Your task to perform on an android device: Go to Wikipedia Image 0: 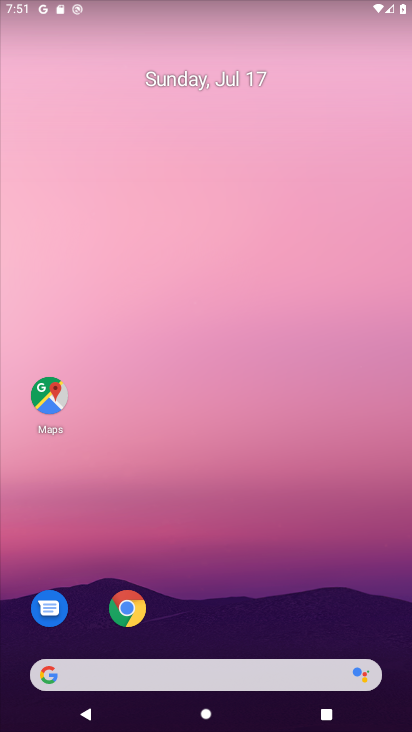
Step 0: click (138, 592)
Your task to perform on an android device: Go to Wikipedia Image 1: 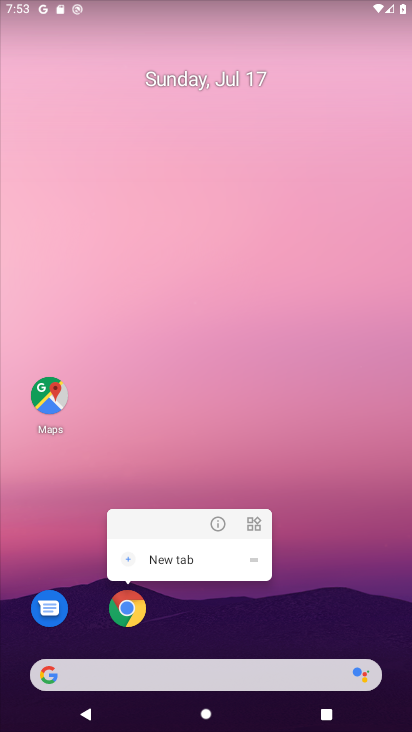
Step 1: drag from (171, 669) to (192, 525)
Your task to perform on an android device: Go to Wikipedia Image 2: 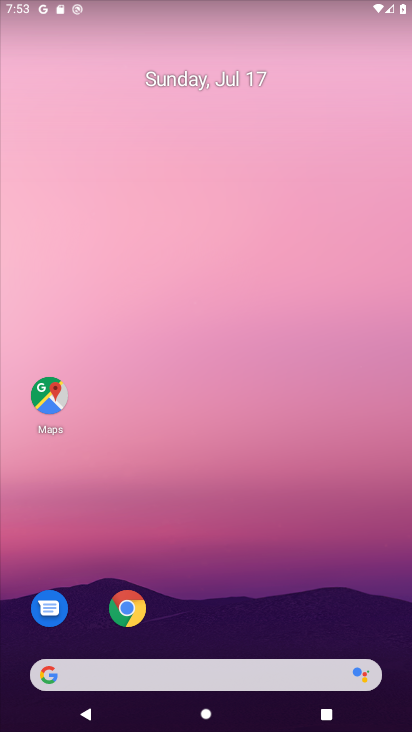
Step 2: click (125, 605)
Your task to perform on an android device: Go to Wikipedia Image 3: 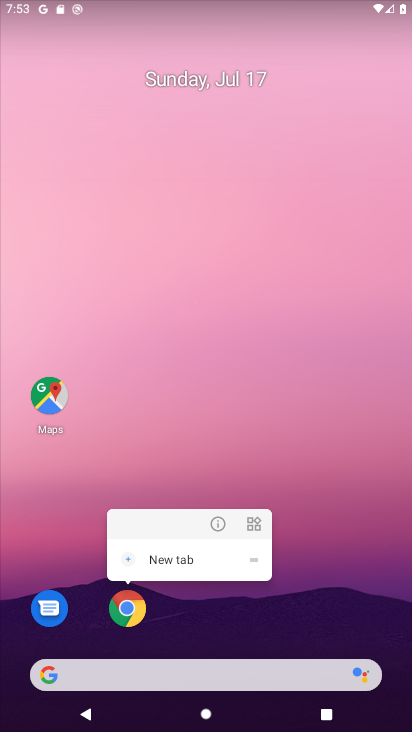
Step 3: click (126, 605)
Your task to perform on an android device: Go to Wikipedia Image 4: 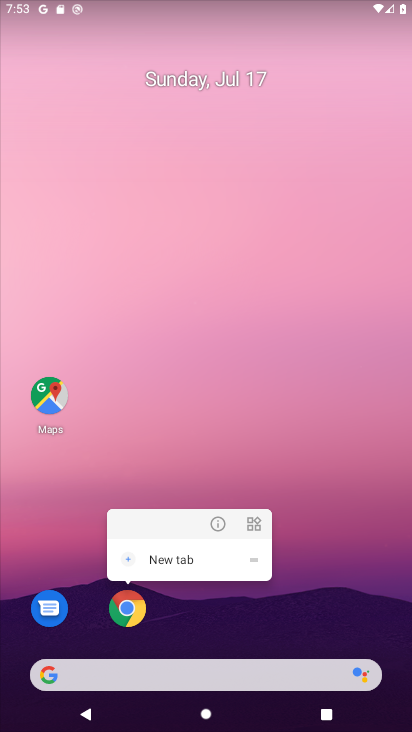
Step 4: click (134, 610)
Your task to perform on an android device: Go to Wikipedia Image 5: 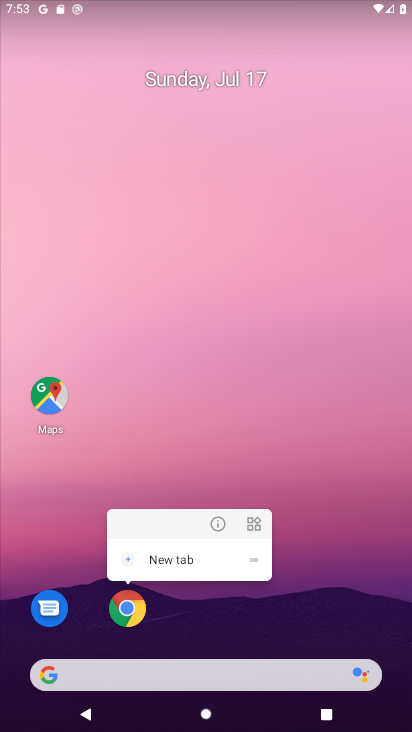
Step 5: click (134, 610)
Your task to perform on an android device: Go to Wikipedia Image 6: 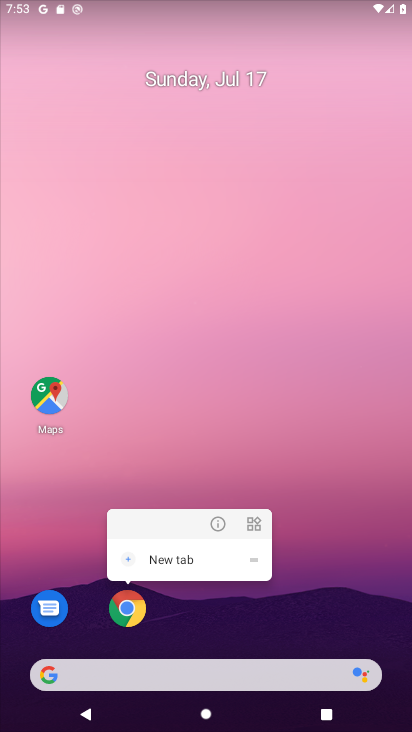
Step 6: drag from (207, 689) to (299, 237)
Your task to perform on an android device: Go to Wikipedia Image 7: 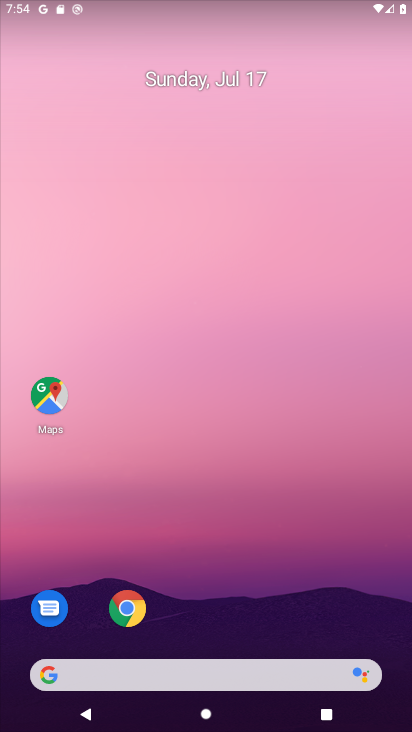
Step 7: drag from (208, 655) to (204, 227)
Your task to perform on an android device: Go to Wikipedia Image 8: 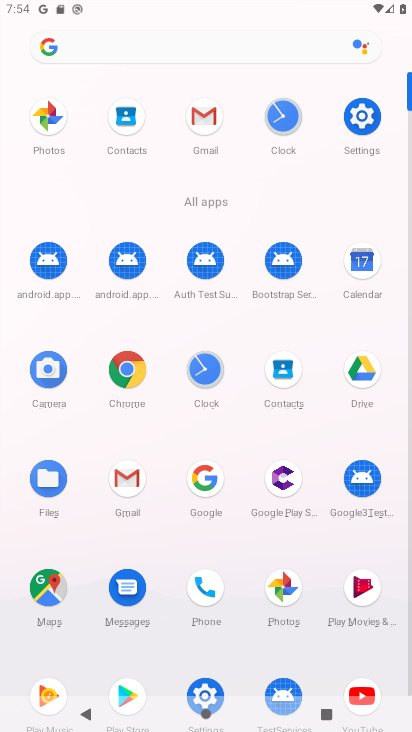
Step 8: click (128, 376)
Your task to perform on an android device: Go to Wikipedia Image 9: 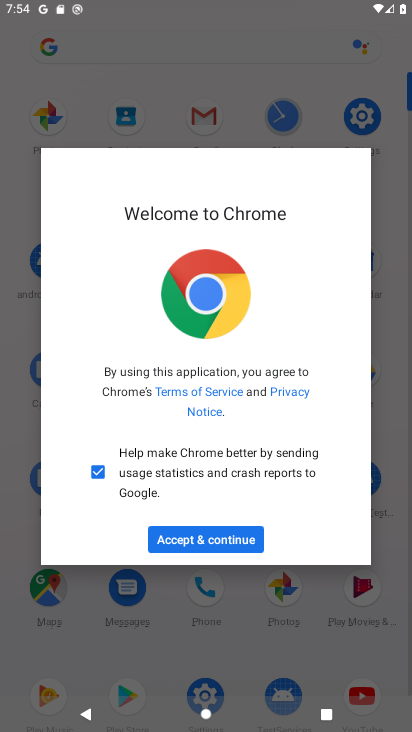
Step 9: click (204, 534)
Your task to perform on an android device: Go to Wikipedia Image 10: 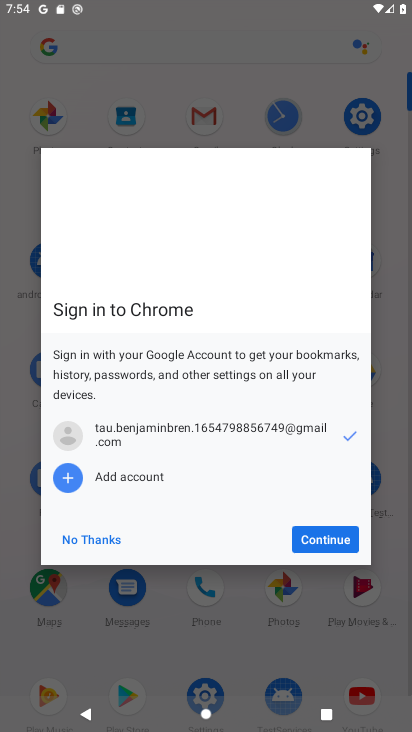
Step 10: click (307, 533)
Your task to perform on an android device: Go to Wikipedia Image 11: 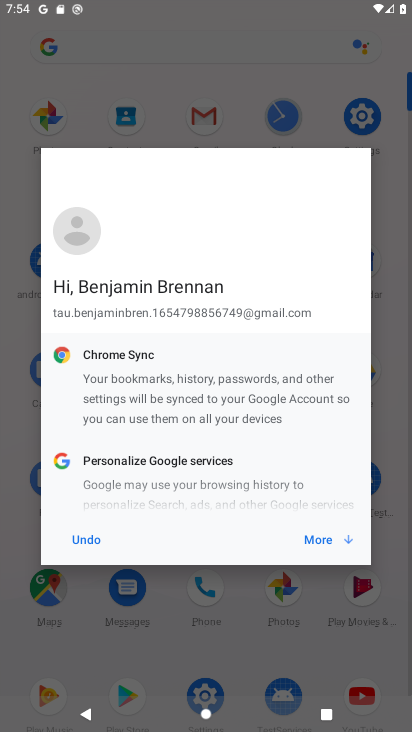
Step 11: click (310, 531)
Your task to perform on an android device: Go to Wikipedia Image 12: 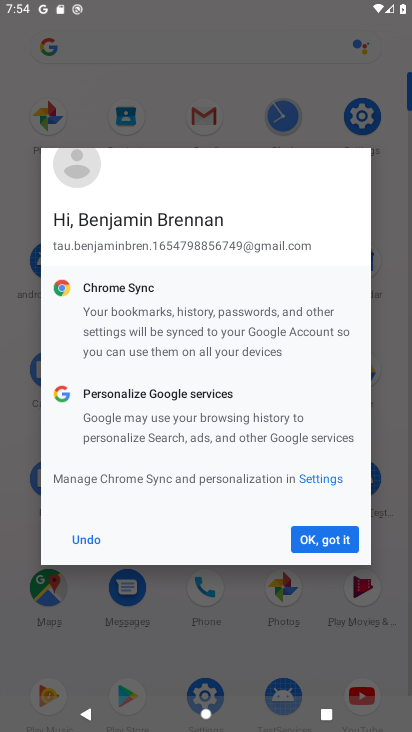
Step 12: click (324, 542)
Your task to perform on an android device: Go to Wikipedia Image 13: 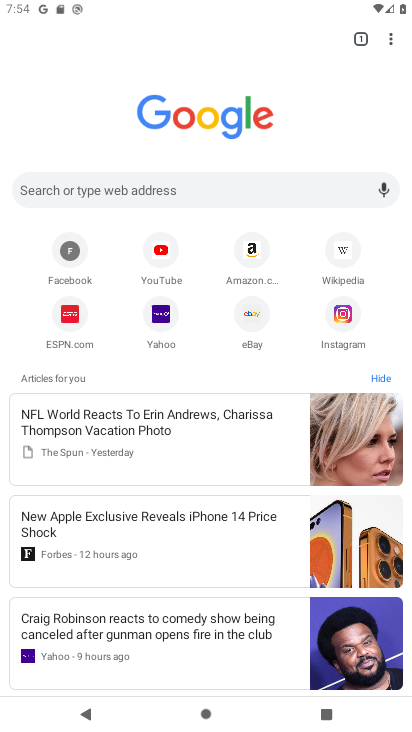
Step 13: click (352, 267)
Your task to perform on an android device: Go to Wikipedia Image 14: 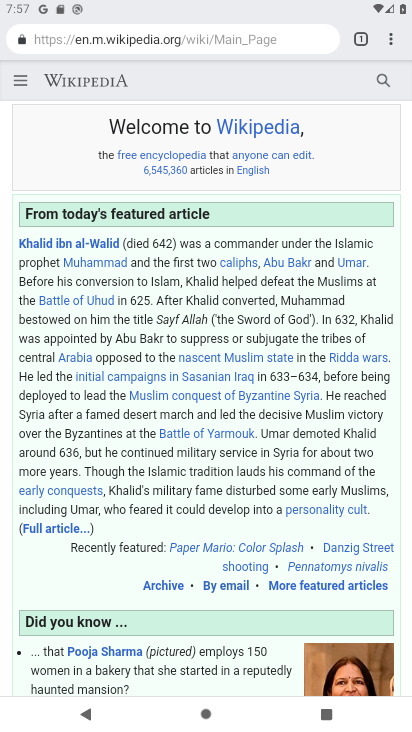
Step 14: task complete